Your task to perform on an android device: Turn on the flashlight Image 0: 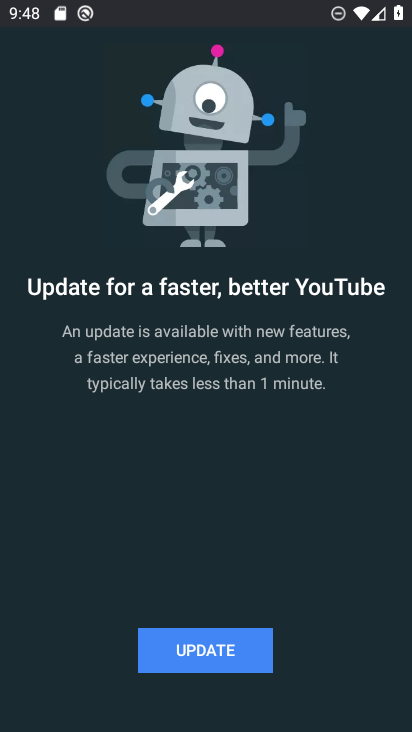
Step 0: press home button
Your task to perform on an android device: Turn on the flashlight Image 1: 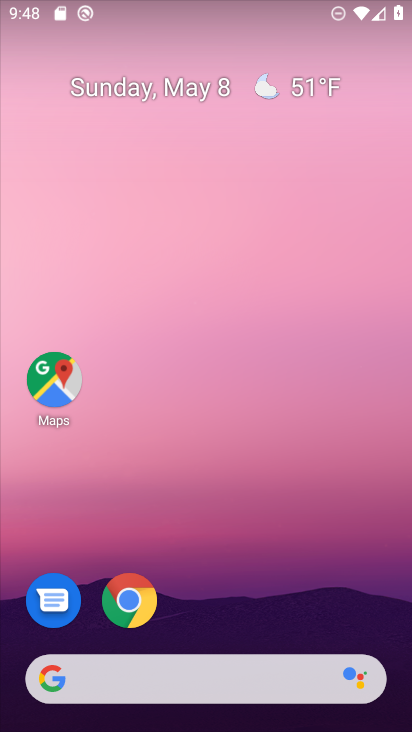
Step 1: task complete